Your task to perform on an android device: check android version Image 0: 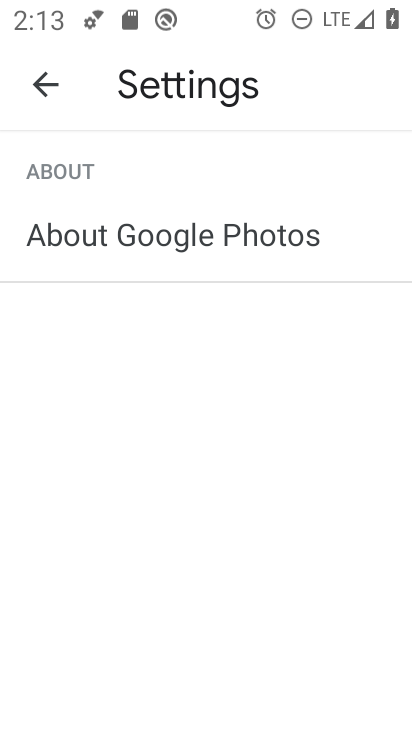
Step 0: press home button
Your task to perform on an android device: check android version Image 1: 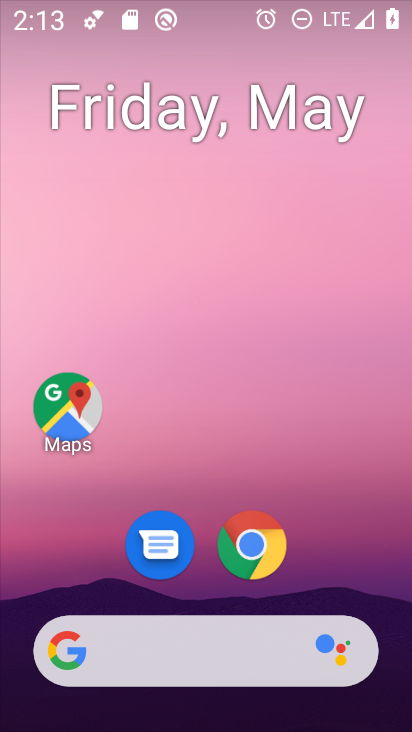
Step 1: drag from (279, 596) to (332, 205)
Your task to perform on an android device: check android version Image 2: 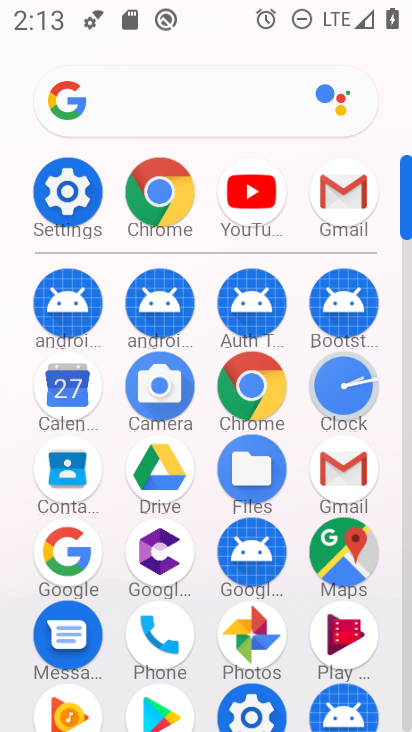
Step 2: click (54, 178)
Your task to perform on an android device: check android version Image 3: 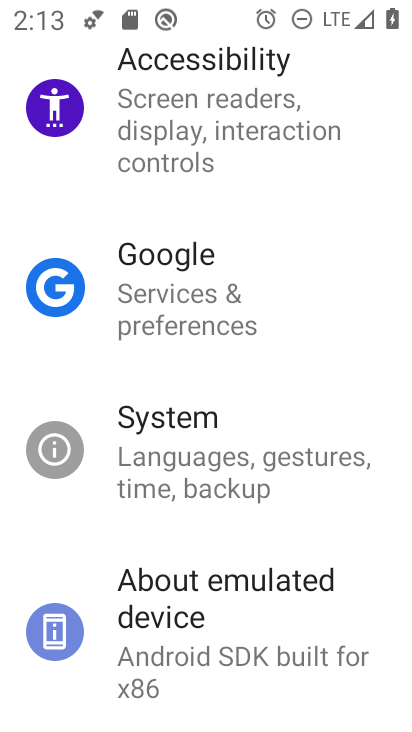
Step 3: drag from (230, 635) to (279, 170)
Your task to perform on an android device: check android version Image 4: 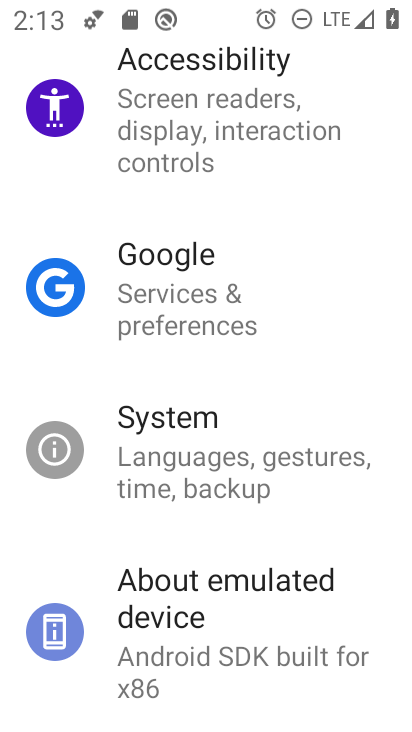
Step 4: click (141, 634)
Your task to perform on an android device: check android version Image 5: 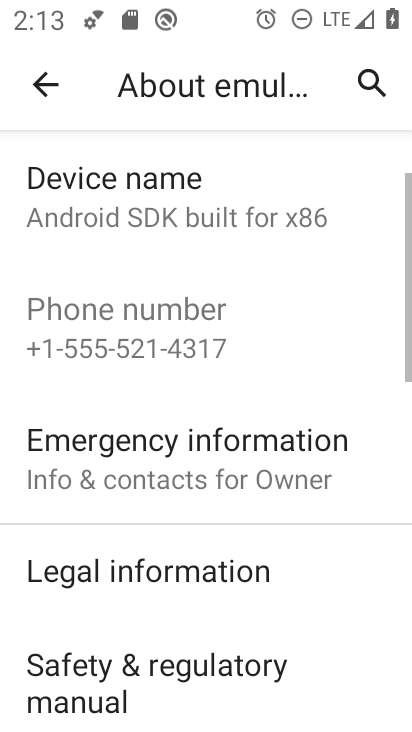
Step 5: task complete